Your task to perform on an android device: Open wifi settings Image 0: 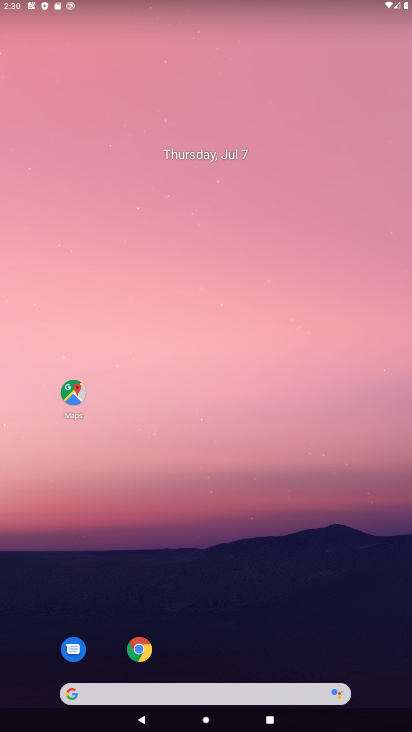
Step 0: drag from (315, 677) to (321, 41)
Your task to perform on an android device: Open wifi settings Image 1: 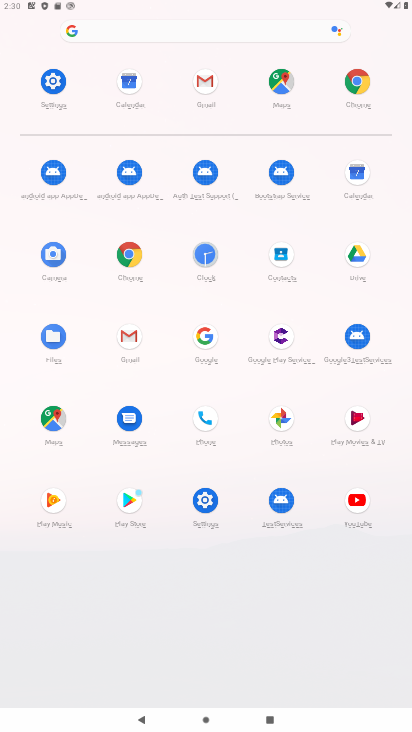
Step 1: click (45, 80)
Your task to perform on an android device: Open wifi settings Image 2: 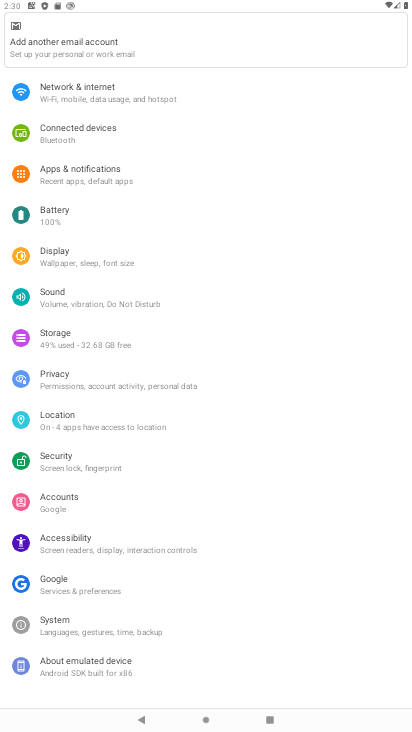
Step 2: click (108, 99)
Your task to perform on an android device: Open wifi settings Image 3: 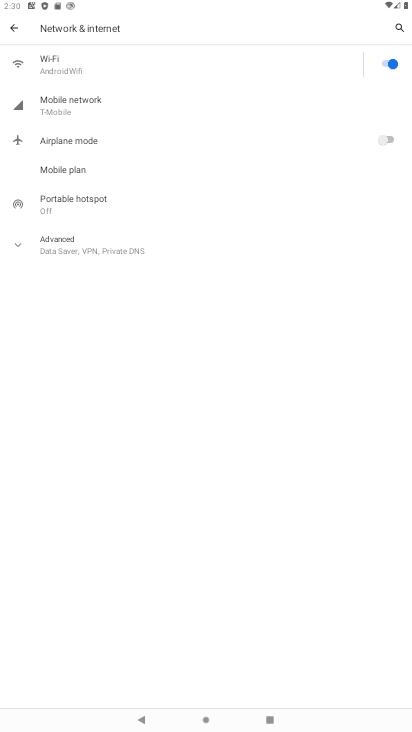
Step 3: click (107, 67)
Your task to perform on an android device: Open wifi settings Image 4: 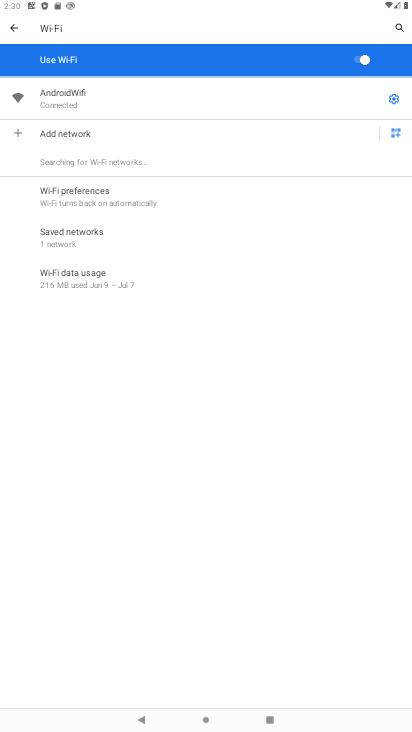
Step 4: task complete